Your task to perform on an android device: Open the map Image 0: 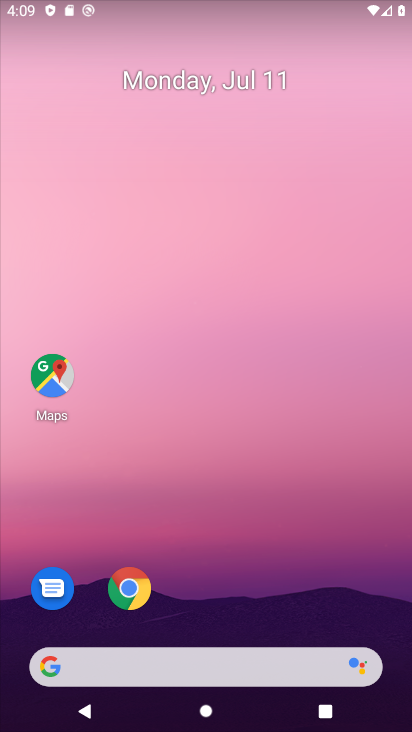
Step 0: drag from (269, 625) to (276, 166)
Your task to perform on an android device: Open the map Image 1: 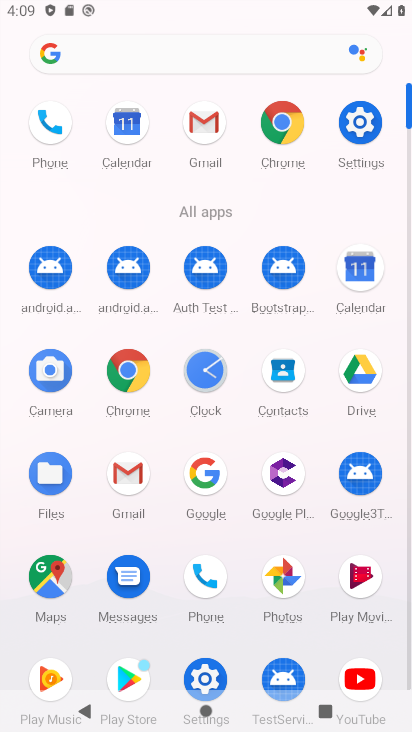
Step 1: click (52, 578)
Your task to perform on an android device: Open the map Image 2: 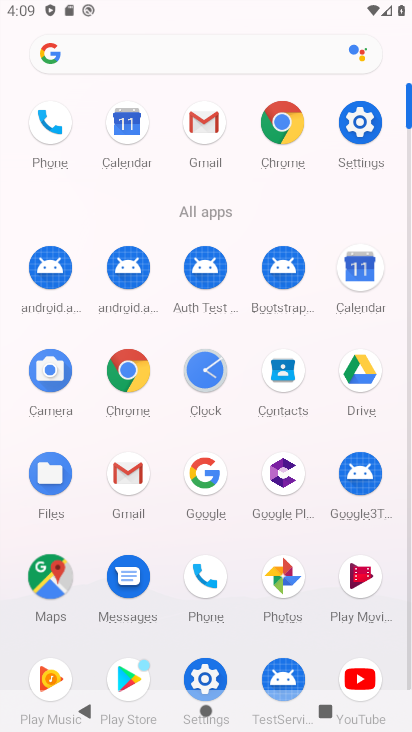
Step 2: click (58, 578)
Your task to perform on an android device: Open the map Image 3: 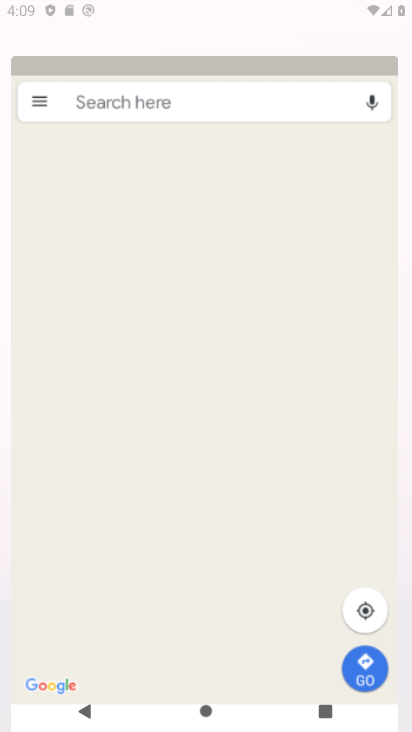
Step 3: click (58, 578)
Your task to perform on an android device: Open the map Image 4: 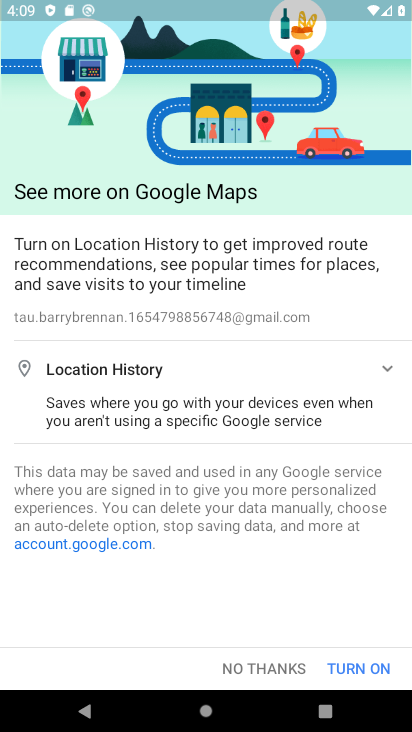
Step 4: task complete